Your task to perform on an android device: Search for sushi restaurants on Maps Image 0: 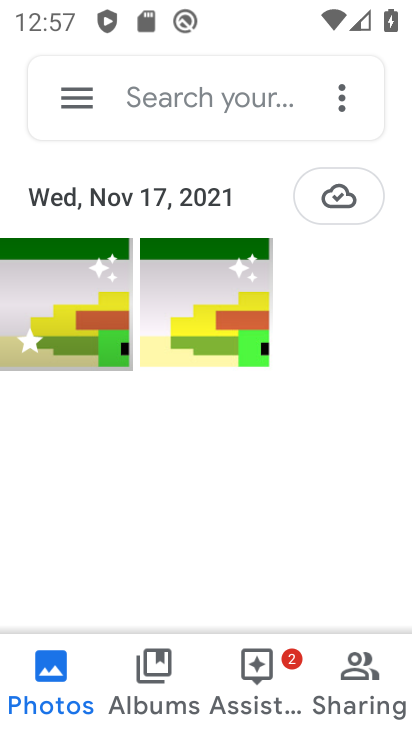
Step 0: press home button
Your task to perform on an android device: Search for sushi restaurants on Maps Image 1: 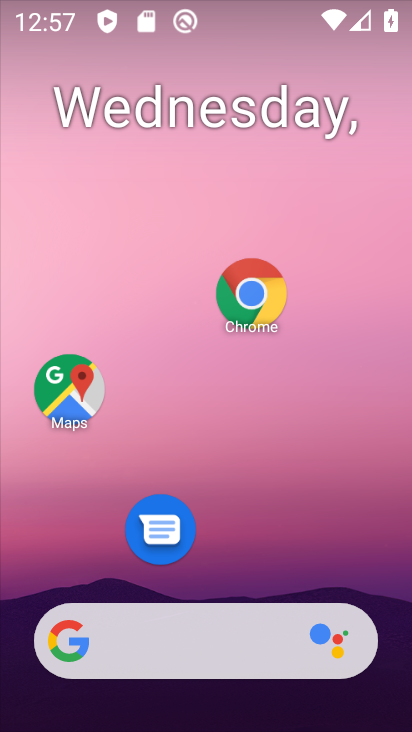
Step 1: drag from (195, 655) to (217, 280)
Your task to perform on an android device: Search for sushi restaurants on Maps Image 2: 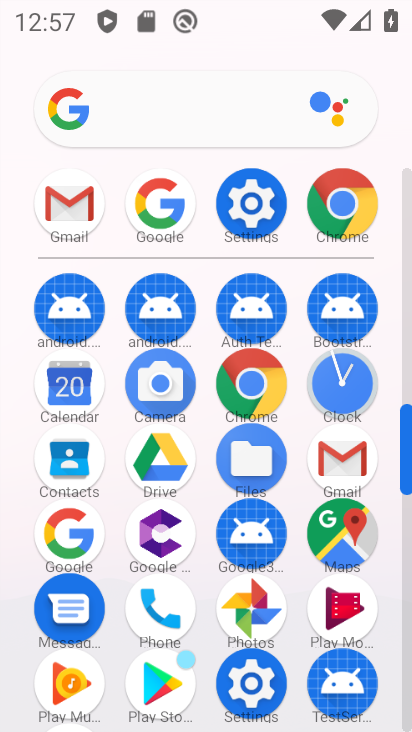
Step 2: click (360, 543)
Your task to perform on an android device: Search for sushi restaurants on Maps Image 3: 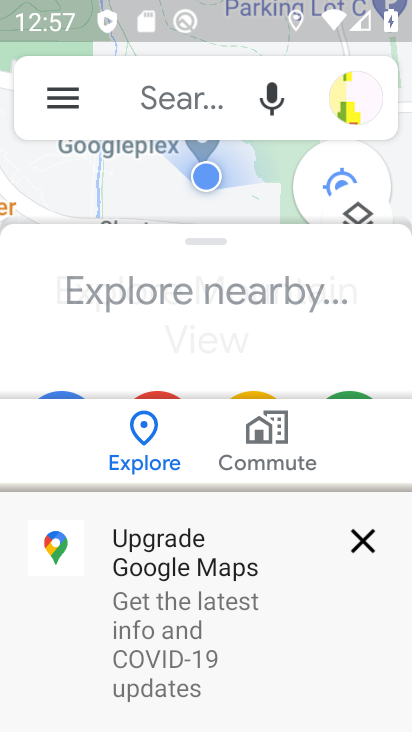
Step 3: click (360, 541)
Your task to perform on an android device: Search for sushi restaurants on Maps Image 4: 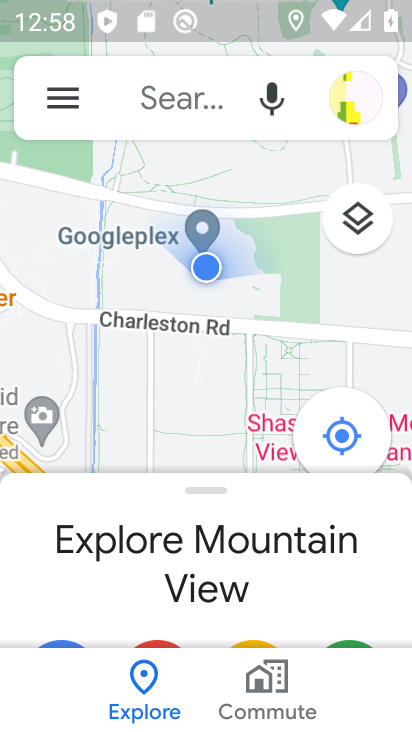
Step 4: click (189, 109)
Your task to perform on an android device: Search for sushi restaurants on Maps Image 5: 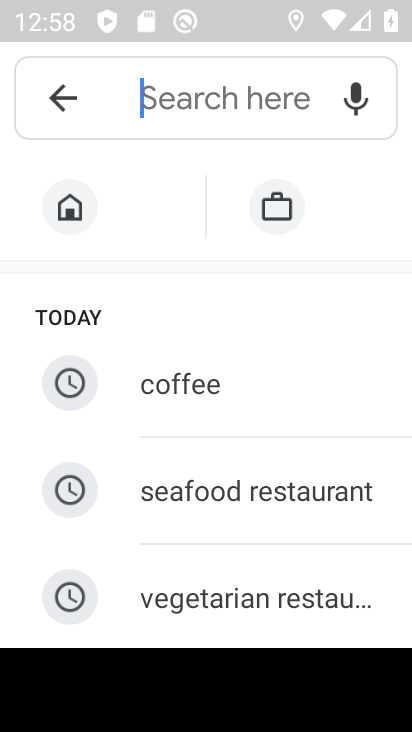
Step 5: drag from (219, 538) to (179, 194)
Your task to perform on an android device: Search for sushi restaurants on Maps Image 6: 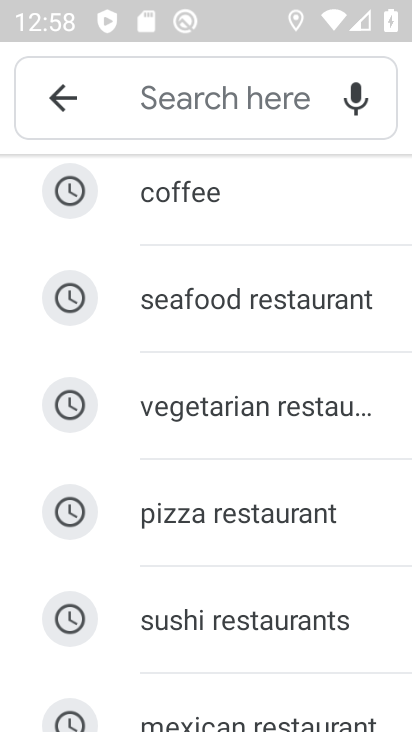
Step 6: click (229, 611)
Your task to perform on an android device: Search for sushi restaurants on Maps Image 7: 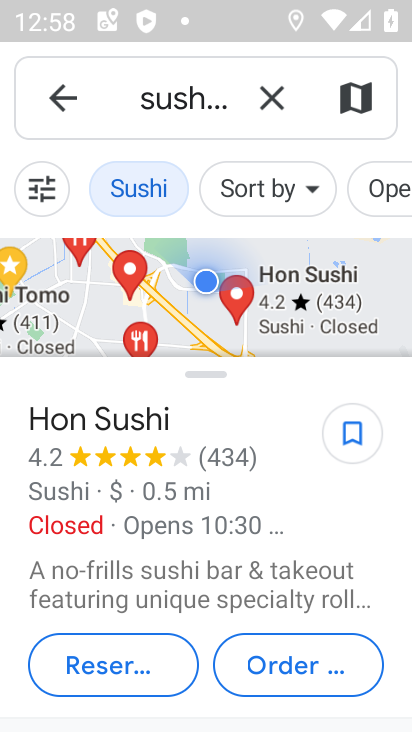
Step 7: task complete